Your task to perform on an android device: Open the stopwatch Image 0: 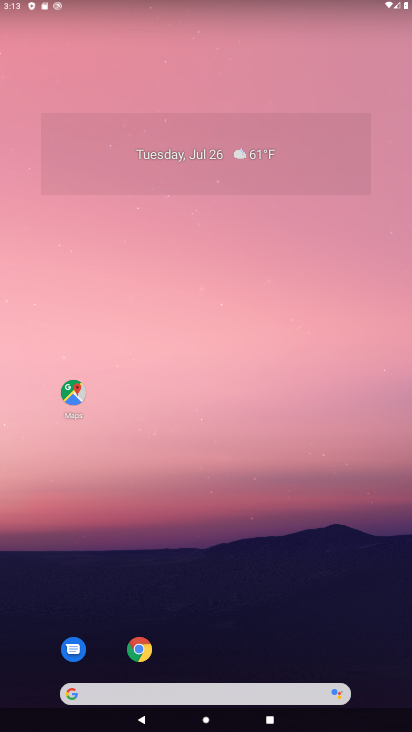
Step 0: drag from (139, 474) to (259, 144)
Your task to perform on an android device: Open the stopwatch Image 1: 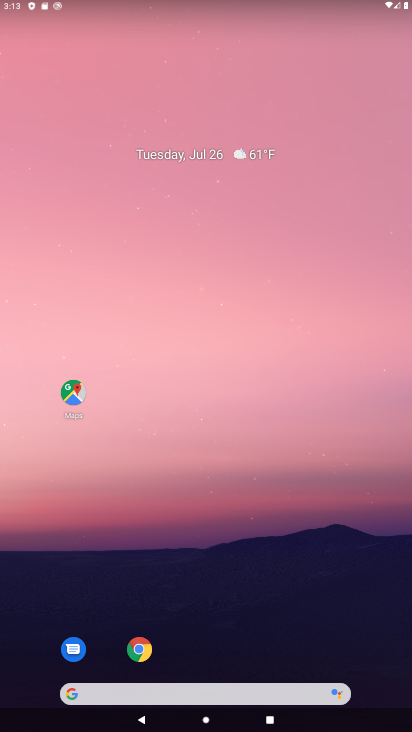
Step 1: drag from (22, 690) to (316, 8)
Your task to perform on an android device: Open the stopwatch Image 2: 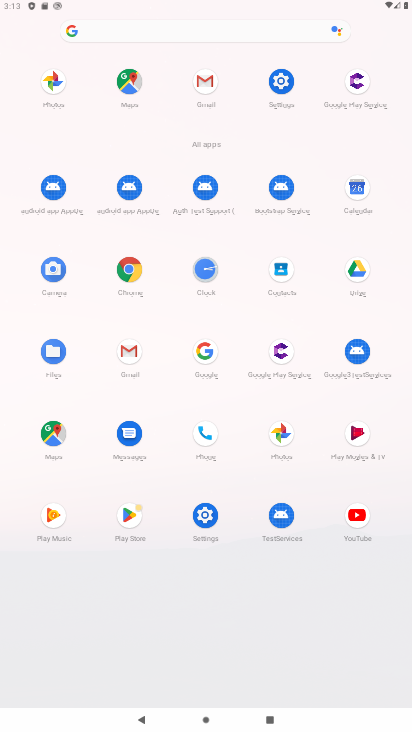
Step 2: click (205, 270)
Your task to perform on an android device: Open the stopwatch Image 3: 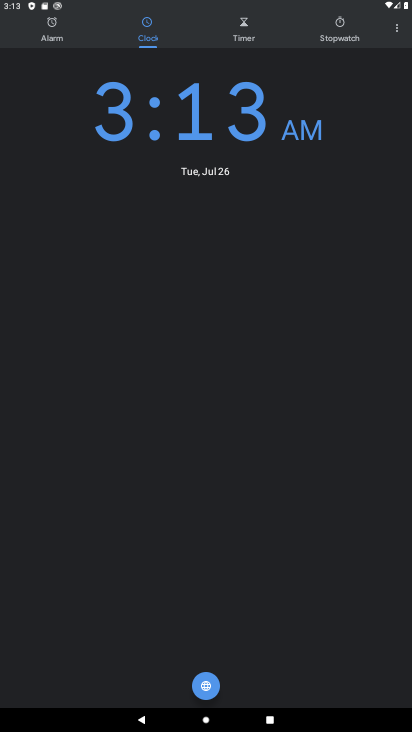
Step 3: click (338, 21)
Your task to perform on an android device: Open the stopwatch Image 4: 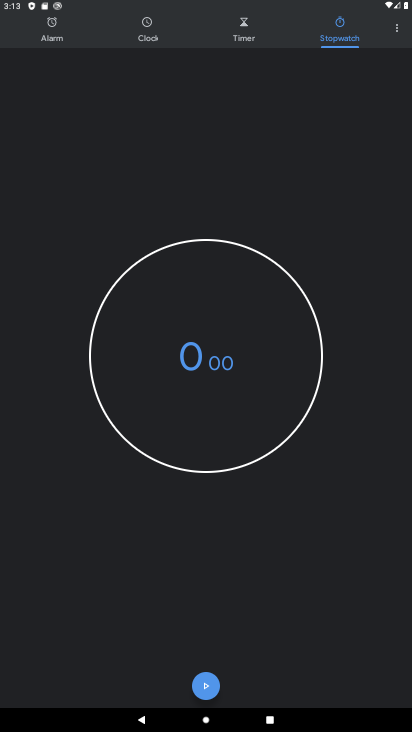
Step 4: click (190, 347)
Your task to perform on an android device: Open the stopwatch Image 5: 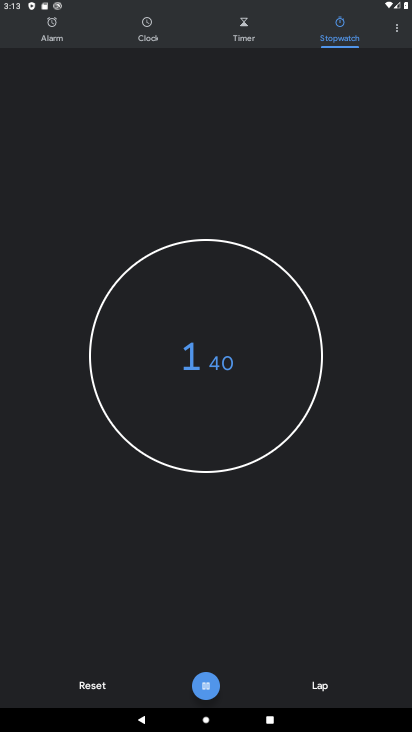
Step 5: click (202, 357)
Your task to perform on an android device: Open the stopwatch Image 6: 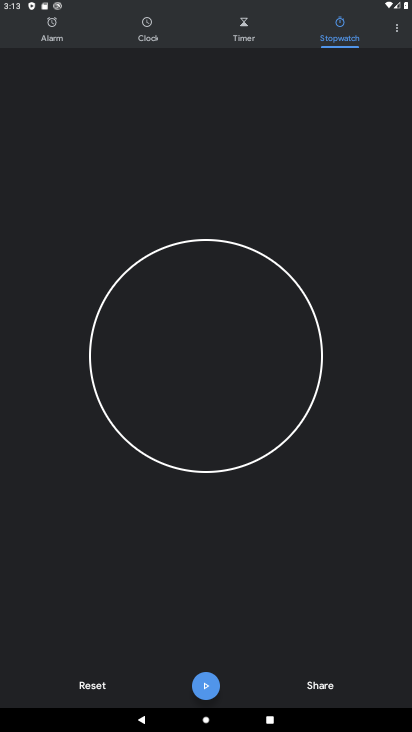
Step 6: task complete